Your task to perform on an android device: Open the stopwatch Image 0: 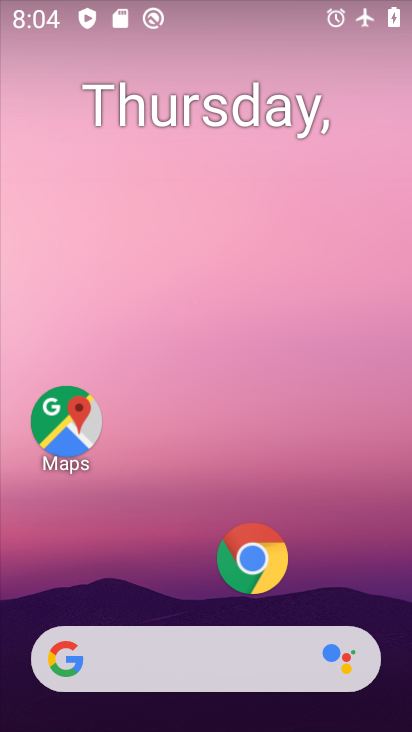
Step 0: drag from (177, 604) to (206, 119)
Your task to perform on an android device: Open the stopwatch Image 1: 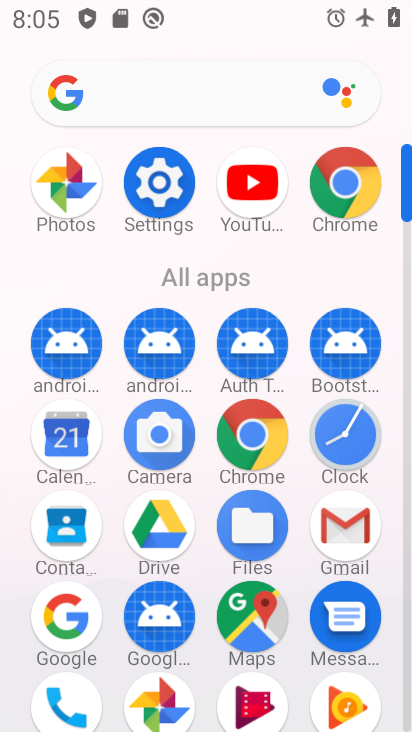
Step 1: click (342, 445)
Your task to perform on an android device: Open the stopwatch Image 2: 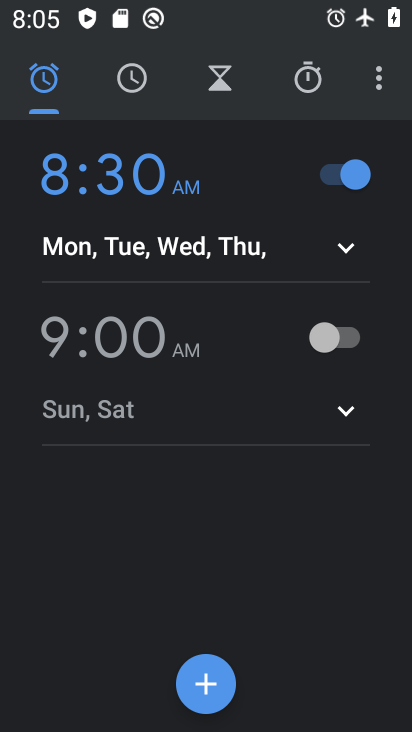
Step 2: click (307, 93)
Your task to perform on an android device: Open the stopwatch Image 3: 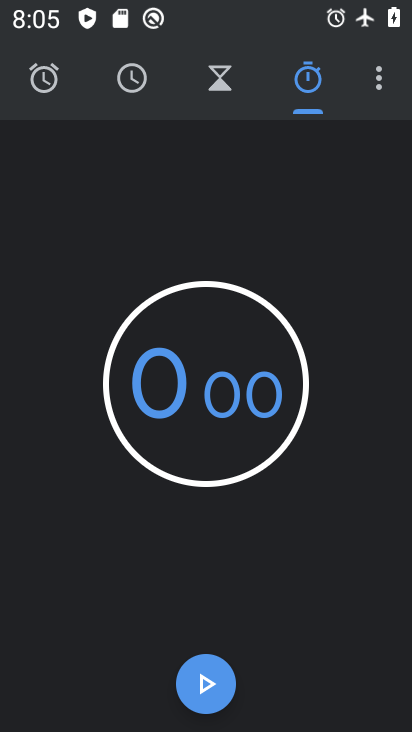
Step 3: task complete